Your task to perform on an android device: Is it going to rain today? Image 0: 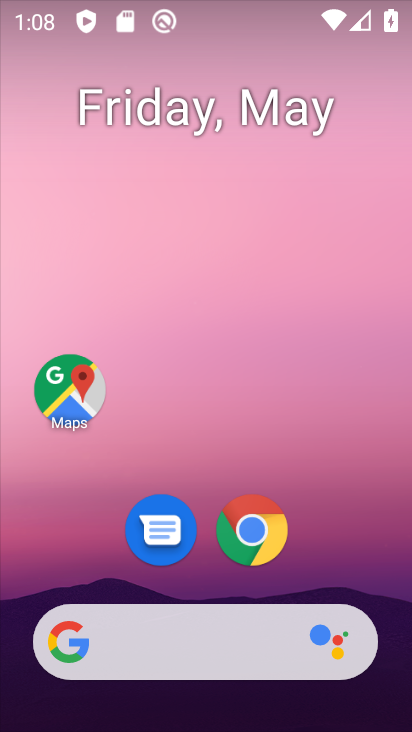
Step 0: drag from (309, 574) to (296, 2)
Your task to perform on an android device: Is it going to rain today? Image 1: 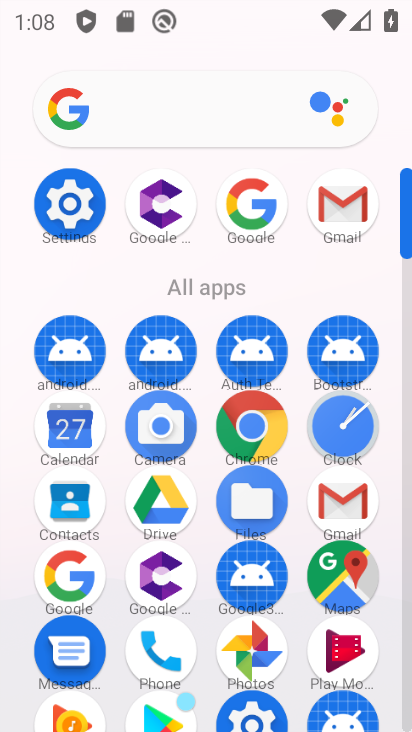
Step 1: click (157, 118)
Your task to perform on an android device: Is it going to rain today? Image 2: 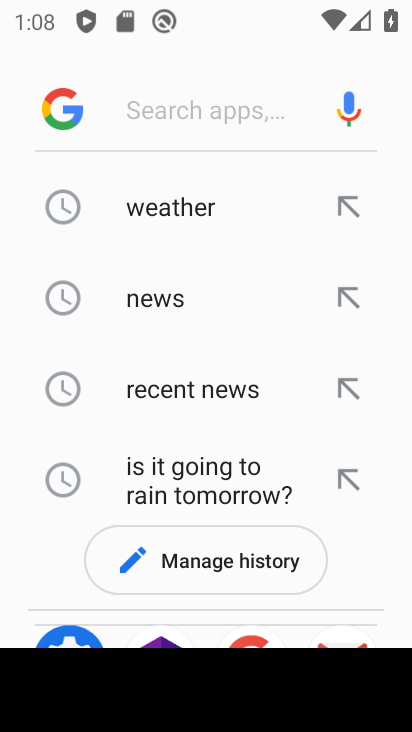
Step 2: type "is it going to rain today"
Your task to perform on an android device: Is it going to rain today? Image 3: 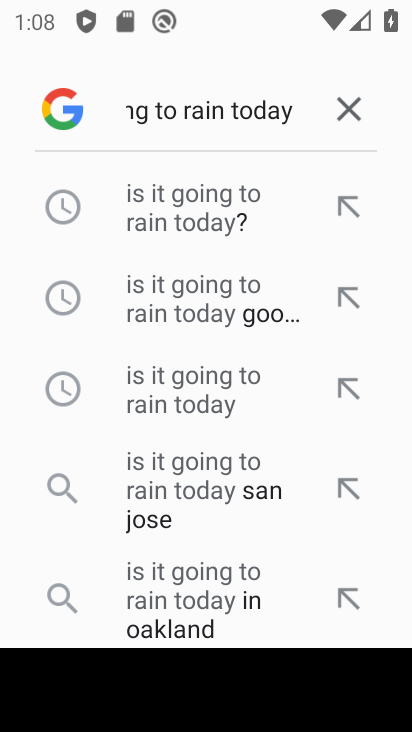
Step 3: click (191, 219)
Your task to perform on an android device: Is it going to rain today? Image 4: 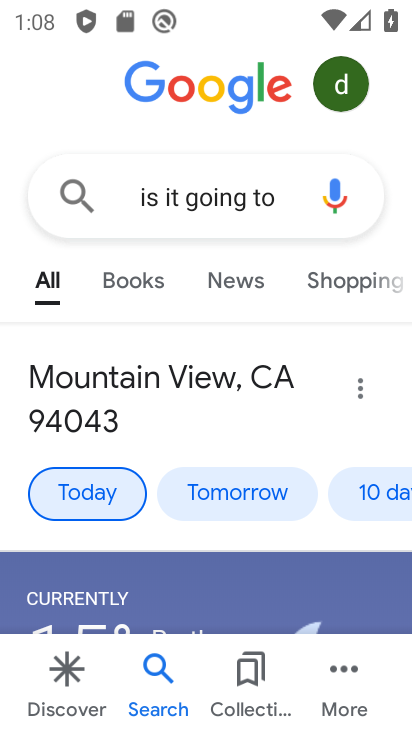
Step 4: task complete